Your task to perform on an android device: find which apps use the phone's location Image 0: 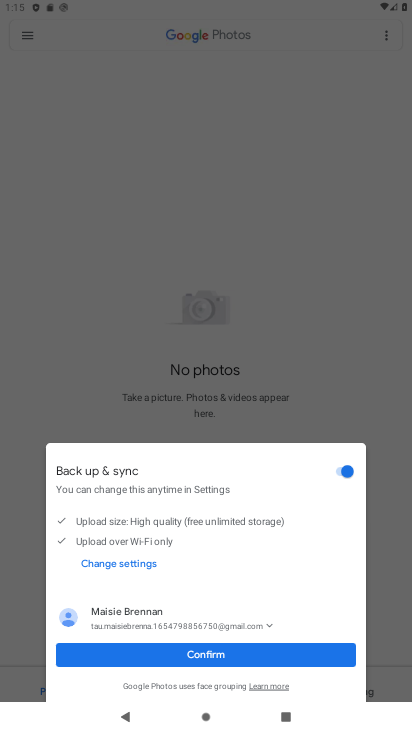
Step 0: press home button
Your task to perform on an android device: find which apps use the phone's location Image 1: 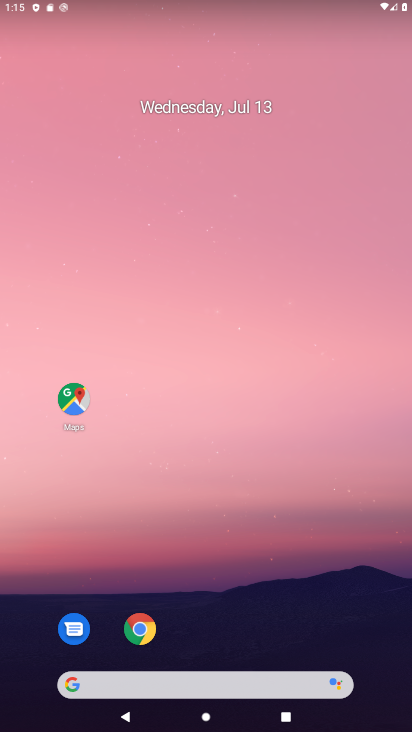
Step 1: drag from (247, 628) to (225, 115)
Your task to perform on an android device: find which apps use the phone's location Image 2: 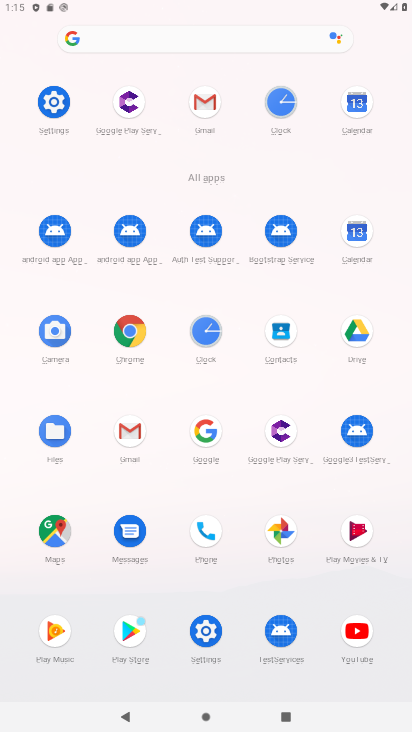
Step 2: click (47, 112)
Your task to perform on an android device: find which apps use the phone's location Image 3: 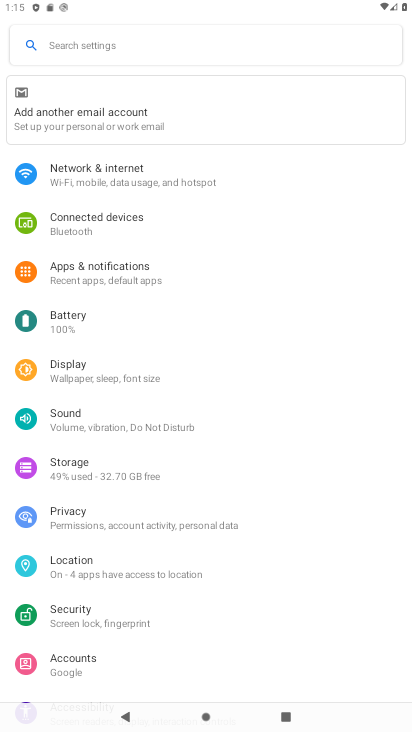
Step 3: click (79, 559)
Your task to perform on an android device: find which apps use the phone's location Image 4: 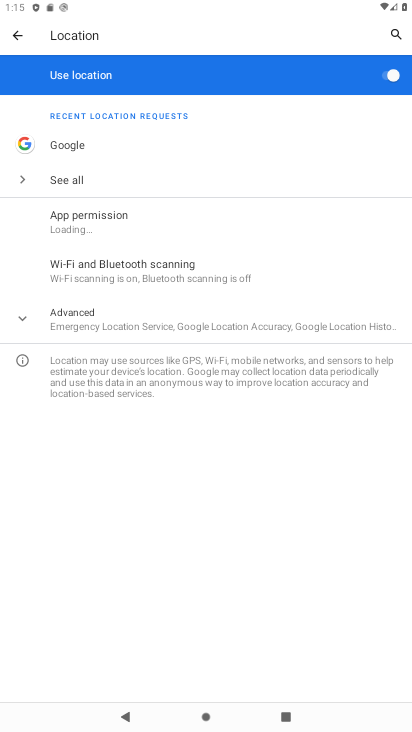
Step 4: task complete